Your task to perform on an android device: Go to CNN.com Image 0: 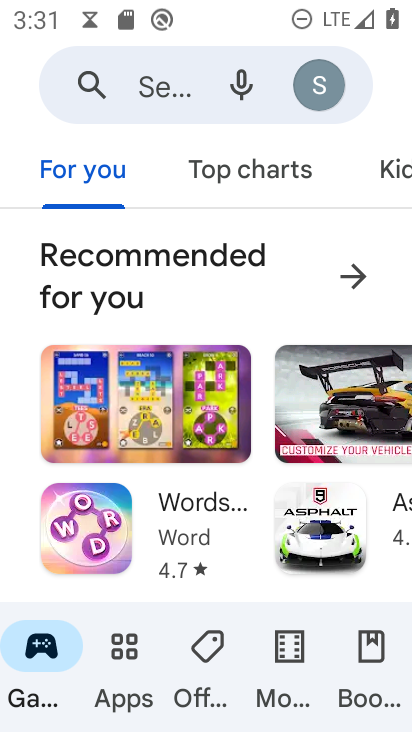
Step 0: press home button
Your task to perform on an android device: Go to CNN.com Image 1: 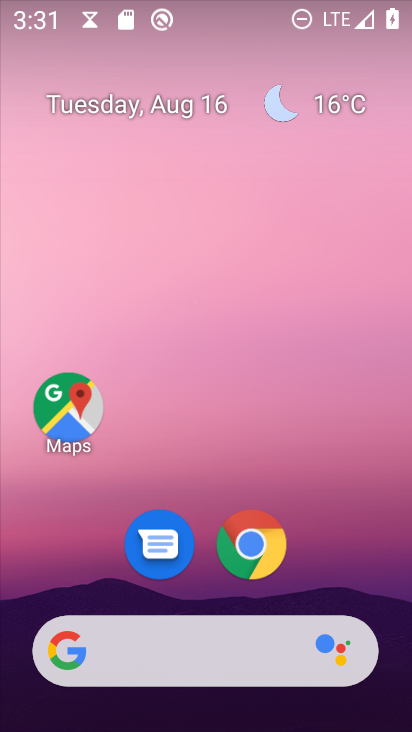
Step 1: click (250, 540)
Your task to perform on an android device: Go to CNN.com Image 2: 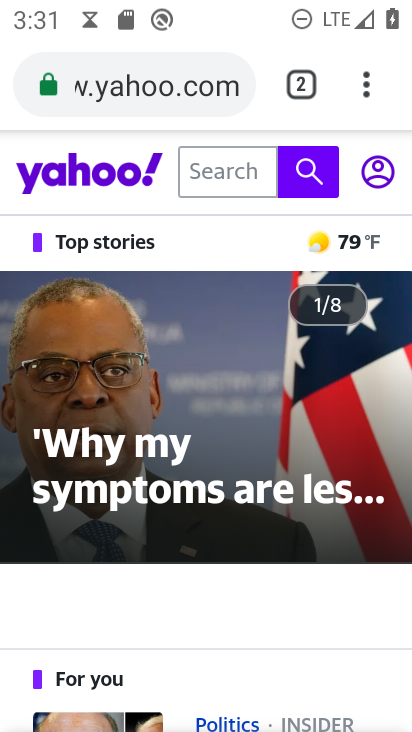
Step 2: click (243, 91)
Your task to perform on an android device: Go to CNN.com Image 3: 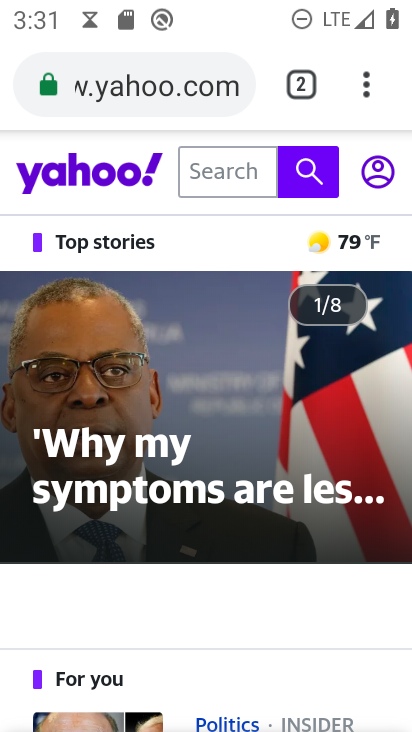
Step 3: click (238, 87)
Your task to perform on an android device: Go to CNN.com Image 4: 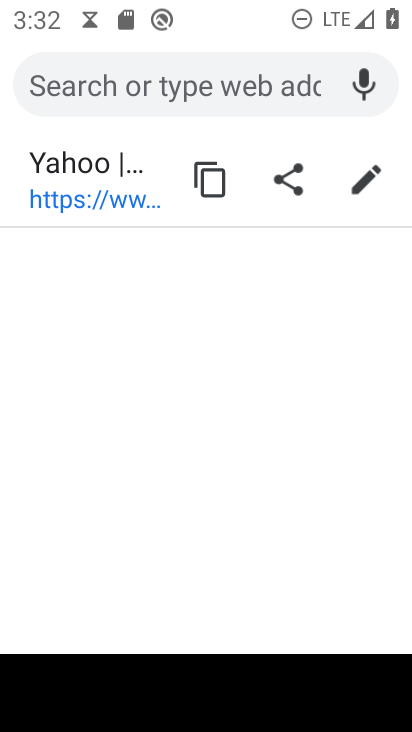
Step 4: type "CNN.com"
Your task to perform on an android device: Go to CNN.com Image 5: 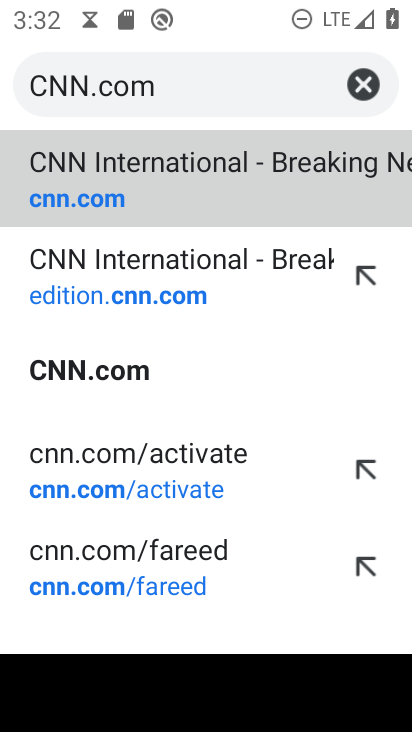
Step 5: click (112, 376)
Your task to perform on an android device: Go to CNN.com Image 6: 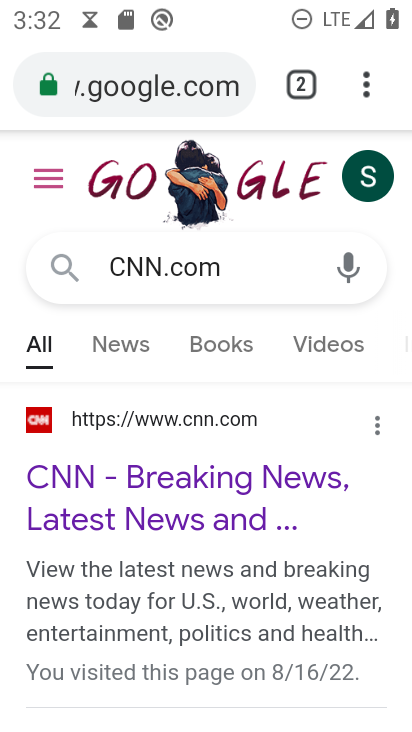
Step 6: click (170, 492)
Your task to perform on an android device: Go to CNN.com Image 7: 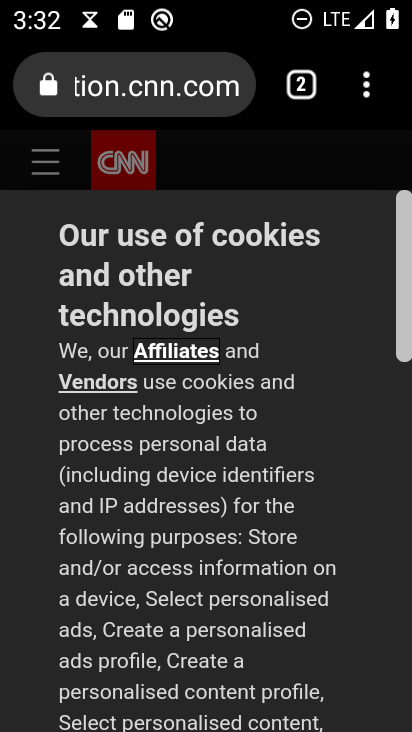
Step 7: drag from (214, 646) to (292, 429)
Your task to perform on an android device: Go to CNN.com Image 8: 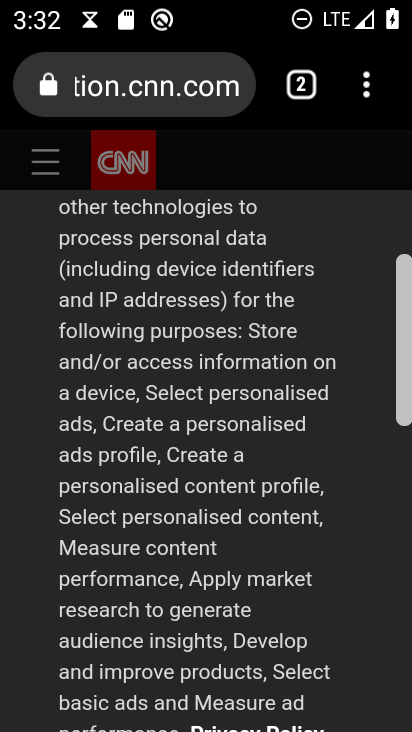
Step 8: drag from (219, 641) to (258, 389)
Your task to perform on an android device: Go to CNN.com Image 9: 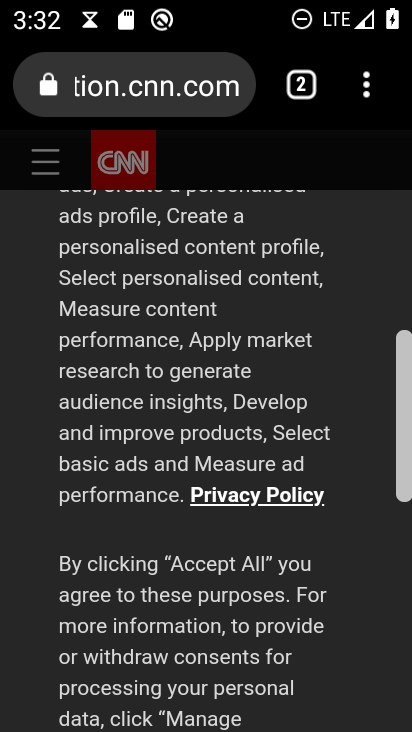
Step 9: drag from (235, 598) to (290, 354)
Your task to perform on an android device: Go to CNN.com Image 10: 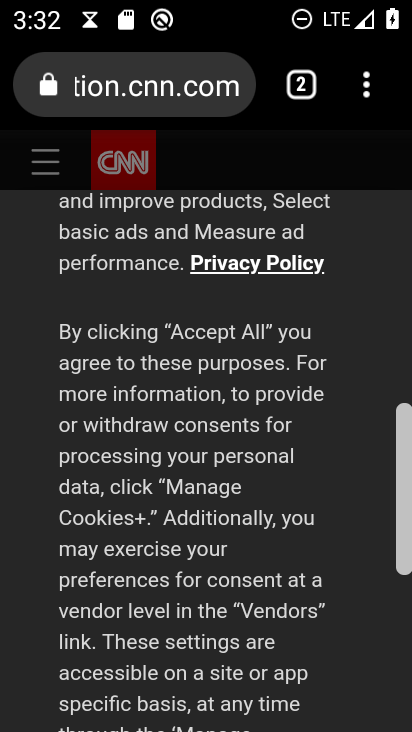
Step 10: drag from (228, 632) to (262, 356)
Your task to perform on an android device: Go to CNN.com Image 11: 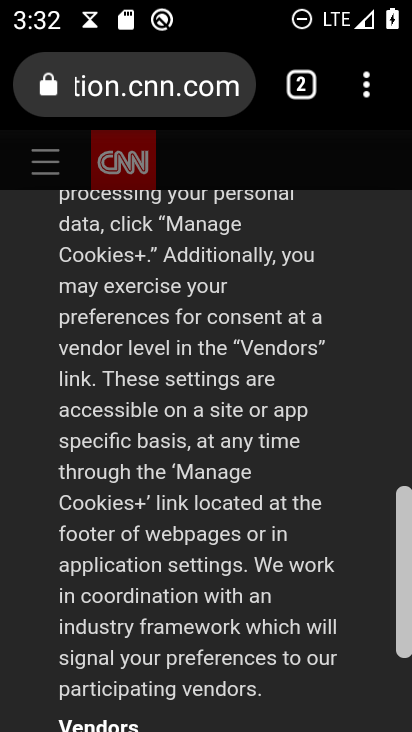
Step 11: drag from (218, 617) to (273, 369)
Your task to perform on an android device: Go to CNN.com Image 12: 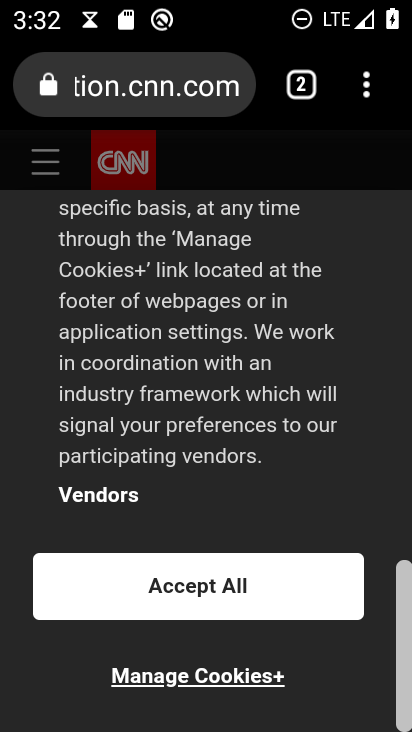
Step 12: click (221, 595)
Your task to perform on an android device: Go to CNN.com Image 13: 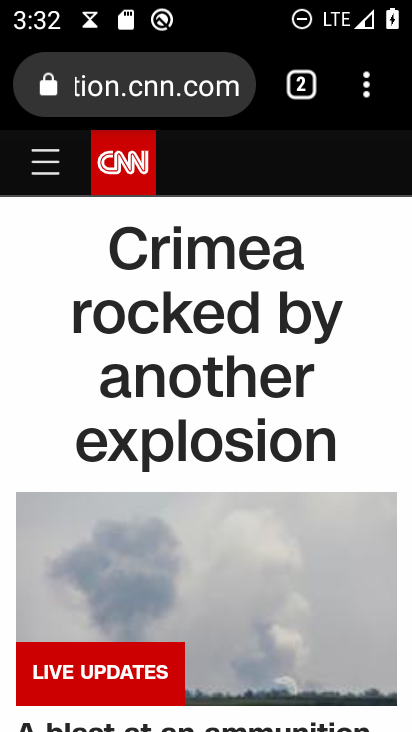
Step 13: task complete